Your task to perform on an android device: Go to settings Image 0: 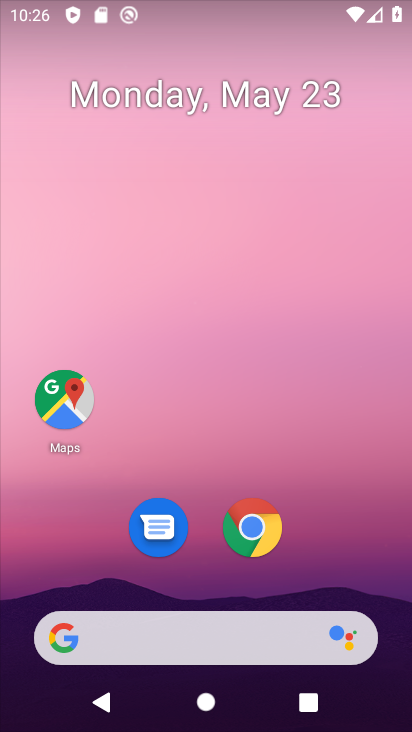
Step 0: drag from (333, 284) to (332, 192)
Your task to perform on an android device: Go to settings Image 1: 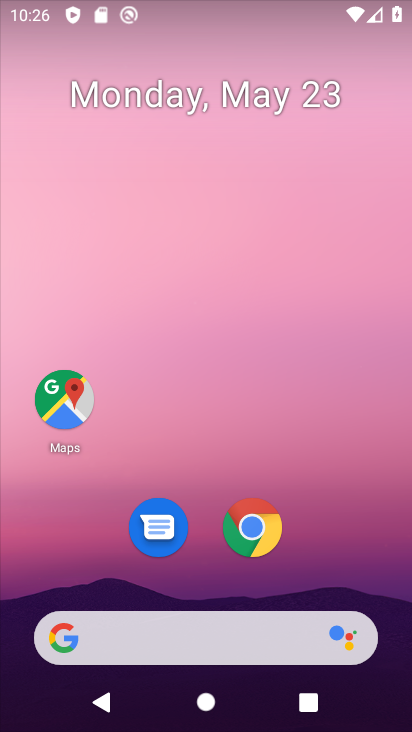
Step 1: drag from (317, 516) to (329, 131)
Your task to perform on an android device: Go to settings Image 2: 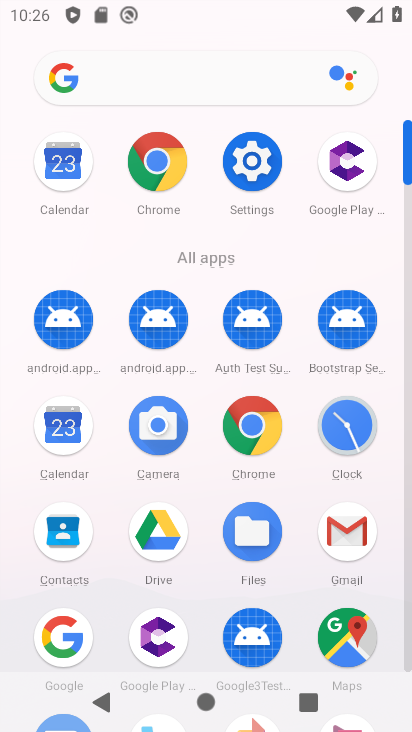
Step 2: click (278, 165)
Your task to perform on an android device: Go to settings Image 3: 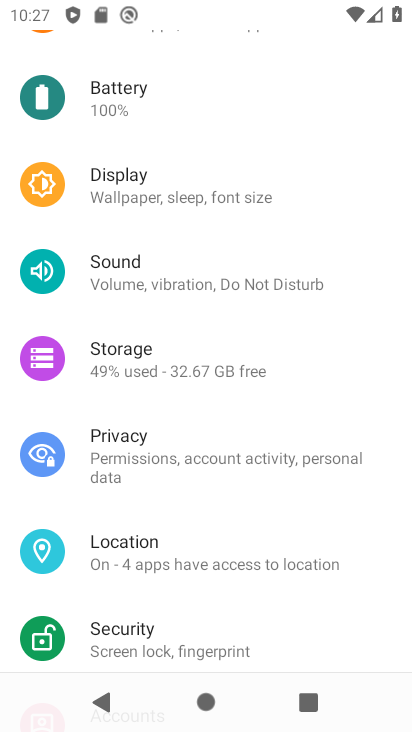
Step 3: task complete